Your task to perform on an android device: toggle data saver in the chrome app Image 0: 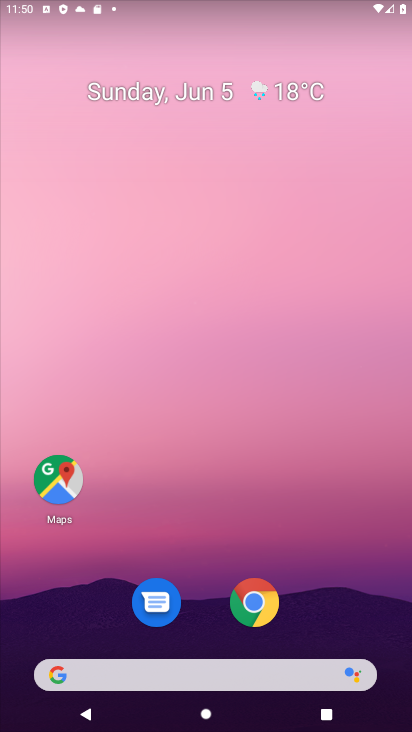
Step 0: click (241, 592)
Your task to perform on an android device: toggle data saver in the chrome app Image 1: 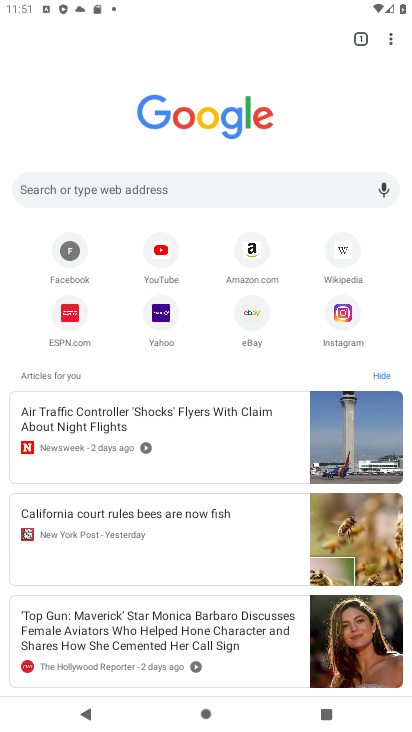
Step 1: task complete